Your task to perform on an android device: Open Google Chrome and open the bookmarks view Image 0: 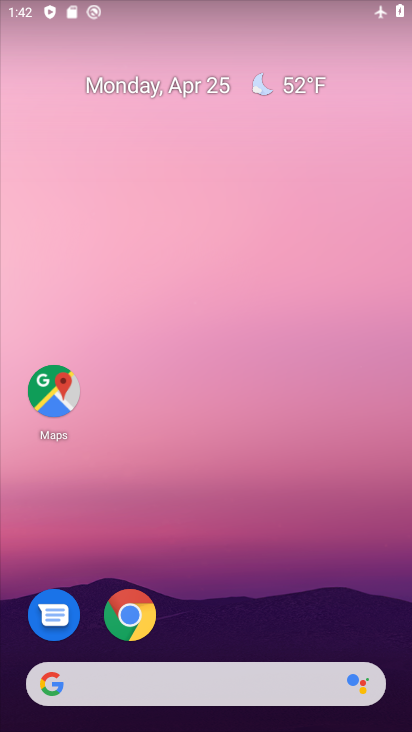
Step 0: click (129, 618)
Your task to perform on an android device: Open Google Chrome and open the bookmarks view Image 1: 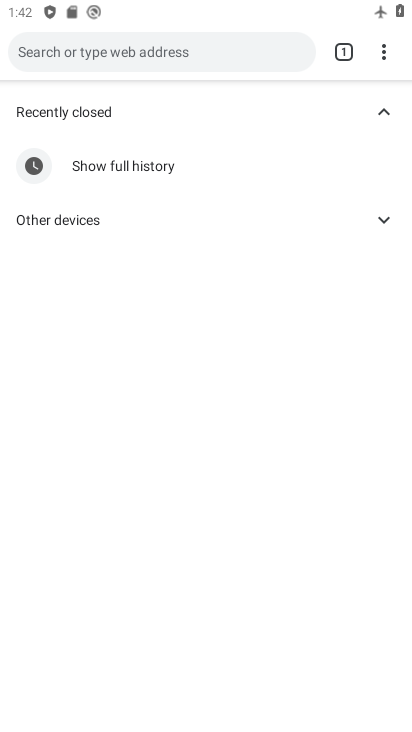
Step 1: click (383, 52)
Your task to perform on an android device: Open Google Chrome and open the bookmarks view Image 2: 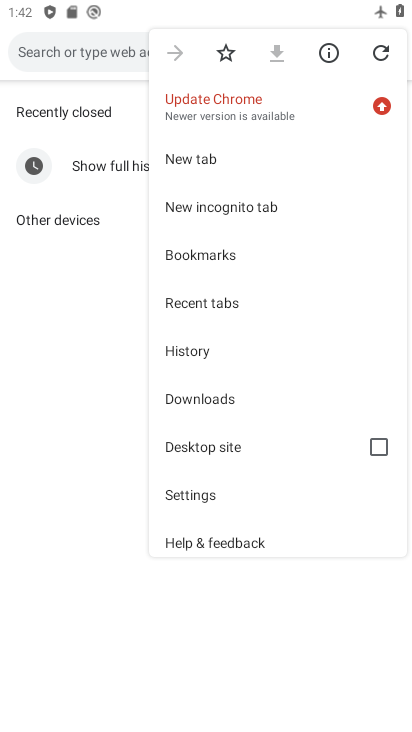
Step 2: click (225, 251)
Your task to perform on an android device: Open Google Chrome and open the bookmarks view Image 3: 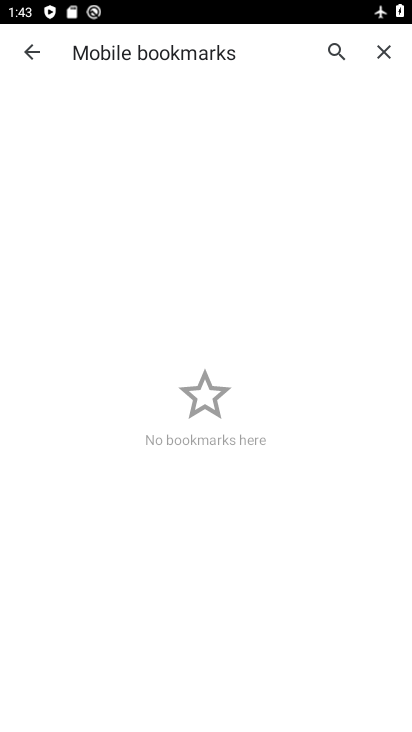
Step 3: task complete